Your task to perform on an android device: turn off smart reply in the gmail app Image 0: 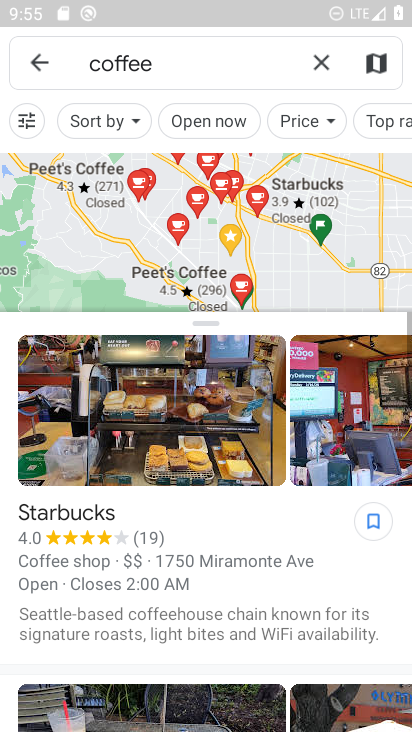
Step 0: press home button
Your task to perform on an android device: turn off smart reply in the gmail app Image 1: 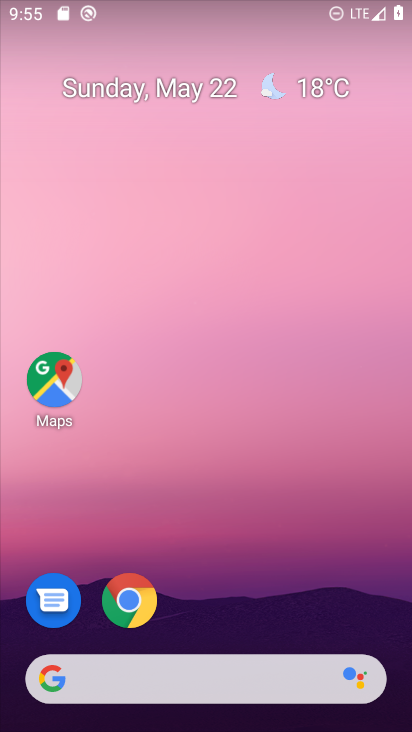
Step 1: drag from (400, 630) to (343, 12)
Your task to perform on an android device: turn off smart reply in the gmail app Image 2: 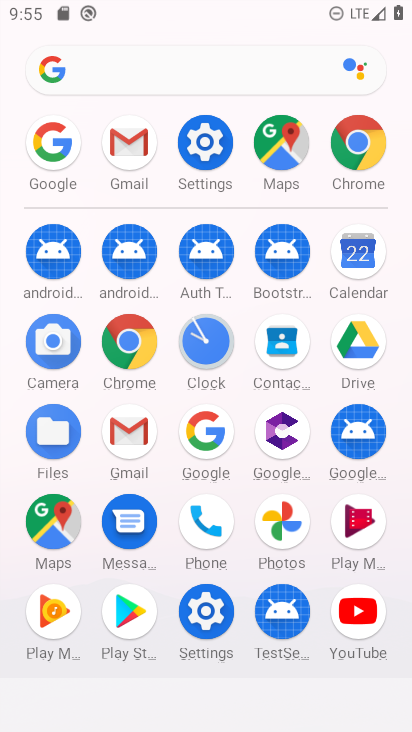
Step 2: click (144, 443)
Your task to perform on an android device: turn off smart reply in the gmail app Image 3: 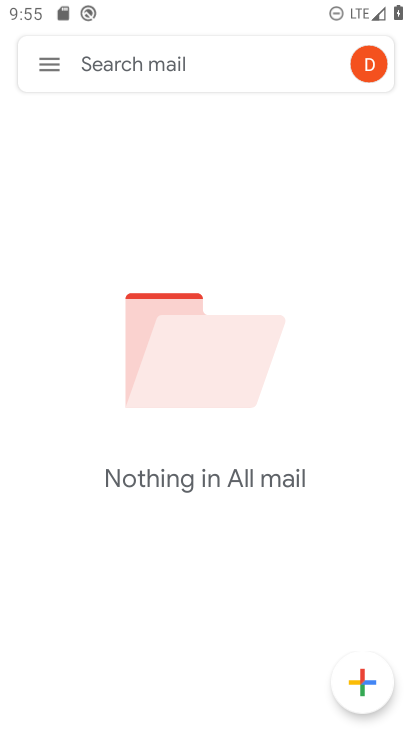
Step 3: click (65, 53)
Your task to perform on an android device: turn off smart reply in the gmail app Image 4: 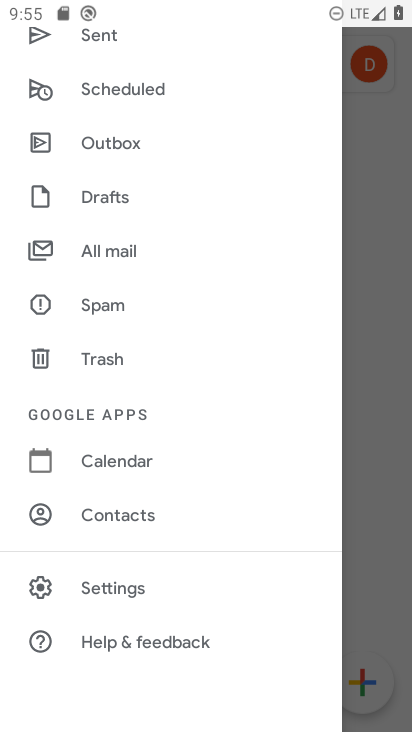
Step 4: click (147, 577)
Your task to perform on an android device: turn off smart reply in the gmail app Image 5: 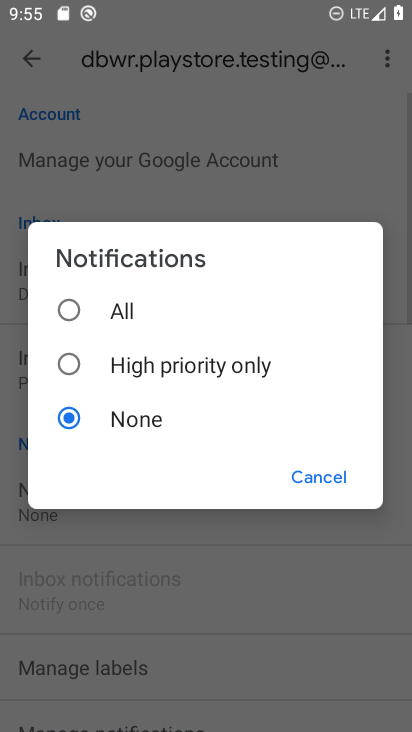
Step 5: click (336, 491)
Your task to perform on an android device: turn off smart reply in the gmail app Image 6: 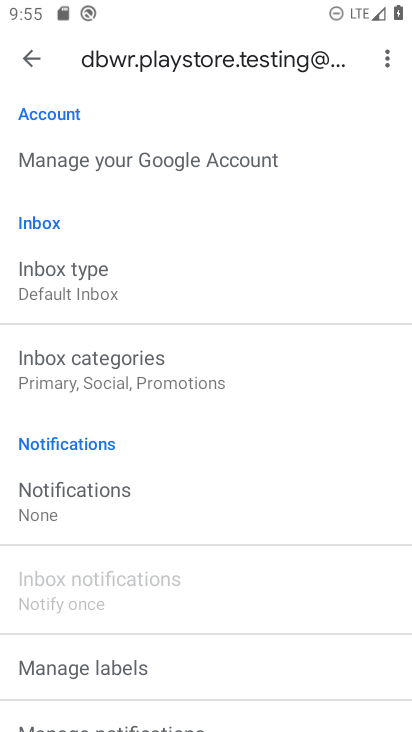
Step 6: task complete